Your task to perform on an android device: Open network settings Image 0: 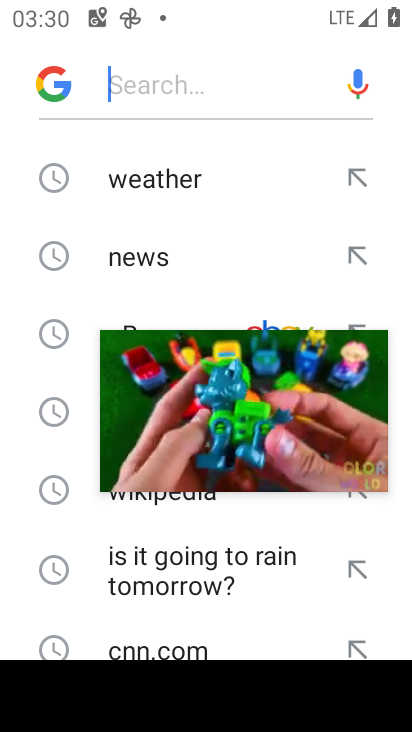
Step 0: press home button
Your task to perform on an android device: Open network settings Image 1: 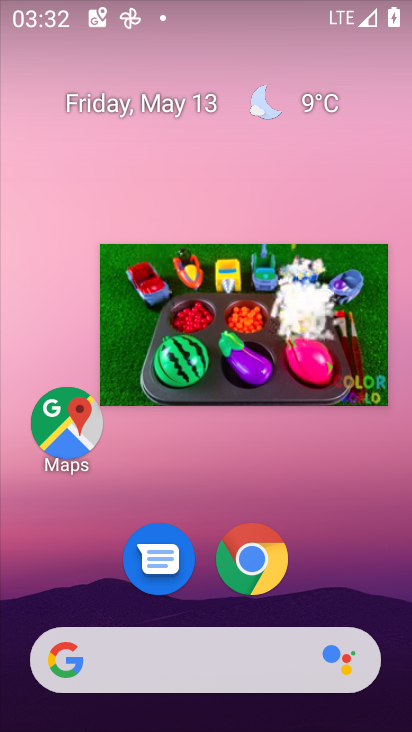
Step 1: click (355, 197)
Your task to perform on an android device: Open network settings Image 2: 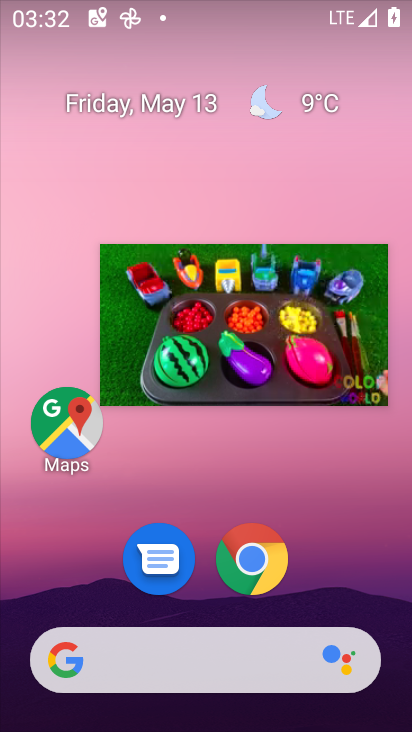
Step 2: drag from (384, 616) to (354, 174)
Your task to perform on an android device: Open network settings Image 3: 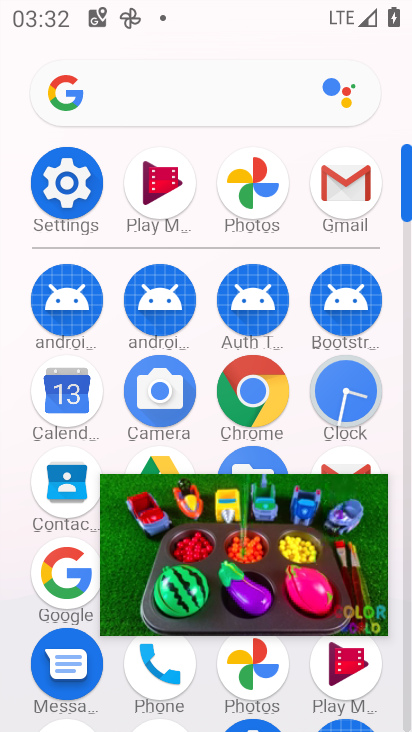
Step 3: click (59, 171)
Your task to perform on an android device: Open network settings Image 4: 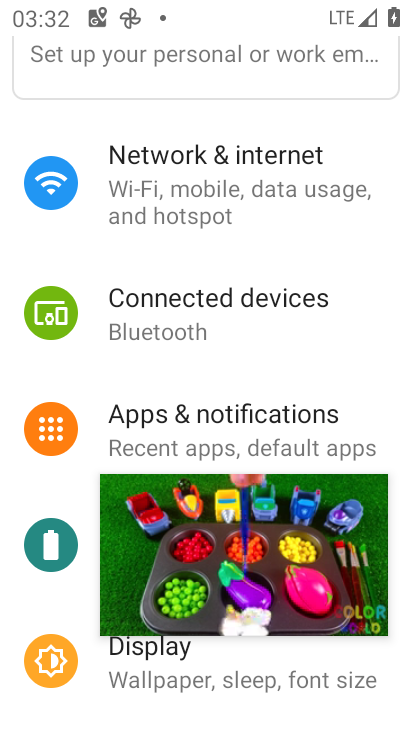
Step 4: click (177, 192)
Your task to perform on an android device: Open network settings Image 5: 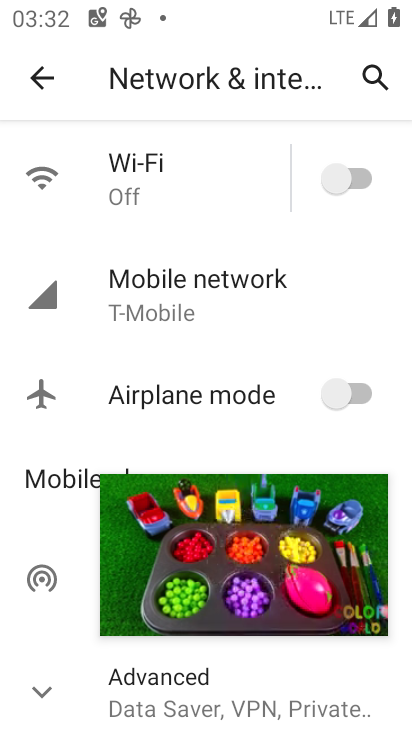
Step 5: click (132, 281)
Your task to perform on an android device: Open network settings Image 6: 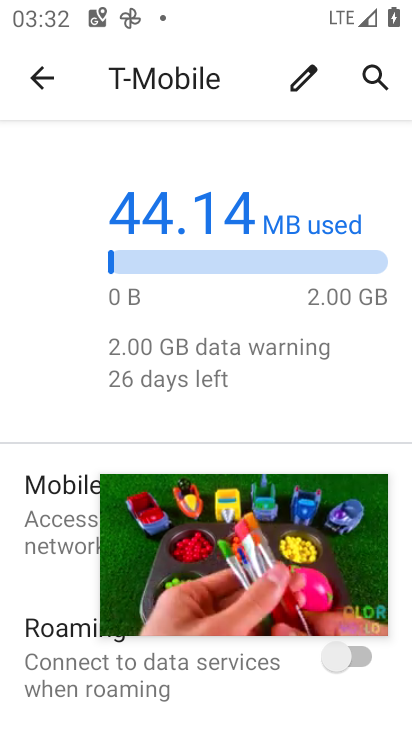
Step 6: task complete